Your task to perform on an android device: turn off smart reply in the gmail app Image 0: 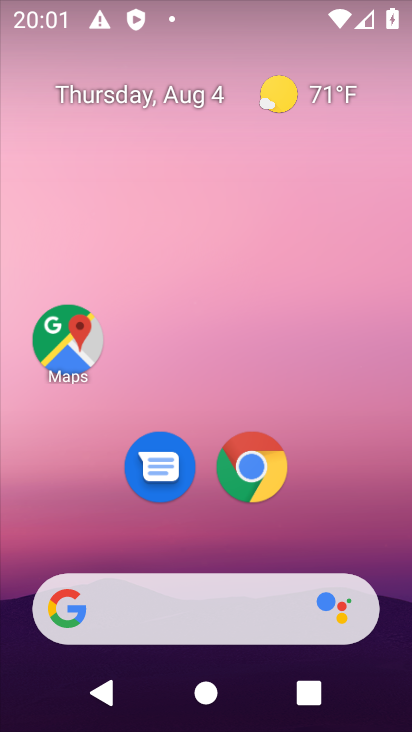
Step 0: drag from (398, 695) to (317, 69)
Your task to perform on an android device: turn off smart reply in the gmail app Image 1: 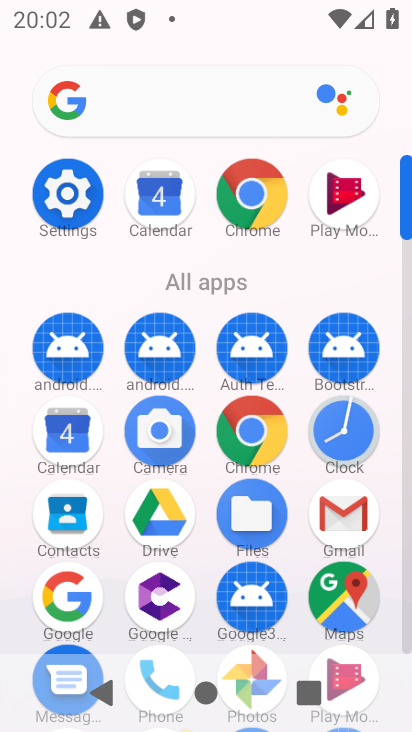
Step 1: drag from (303, 596) to (341, 156)
Your task to perform on an android device: turn off smart reply in the gmail app Image 2: 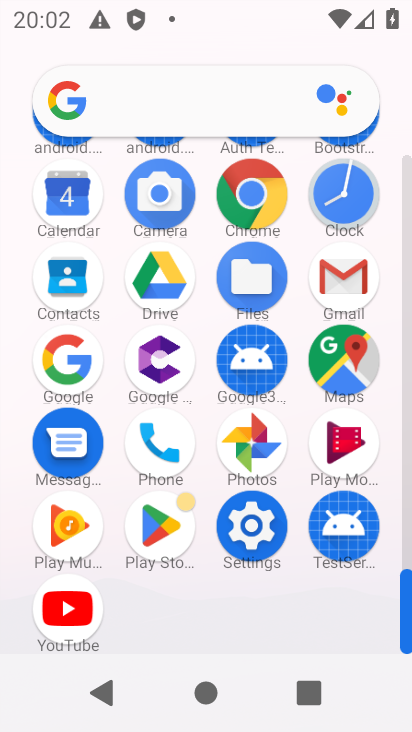
Step 2: click (355, 286)
Your task to perform on an android device: turn off smart reply in the gmail app Image 3: 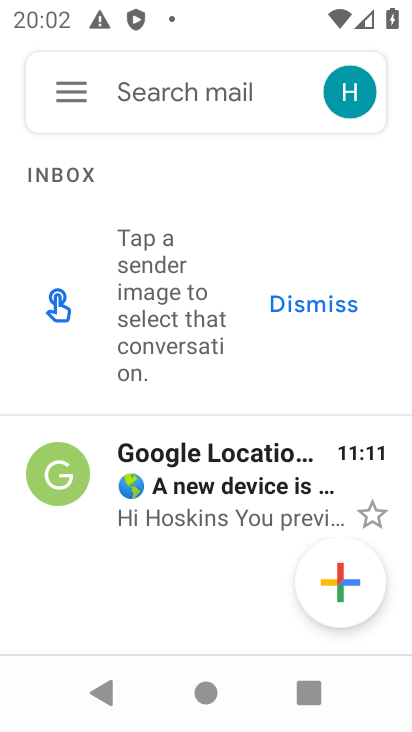
Step 3: click (59, 87)
Your task to perform on an android device: turn off smart reply in the gmail app Image 4: 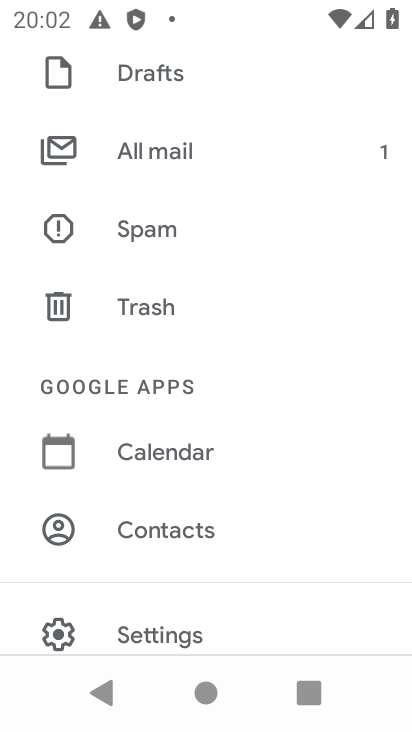
Step 4: click (121, 638)
Your task to perform on an android device: turn off smart reply in the gmail app Image 5: 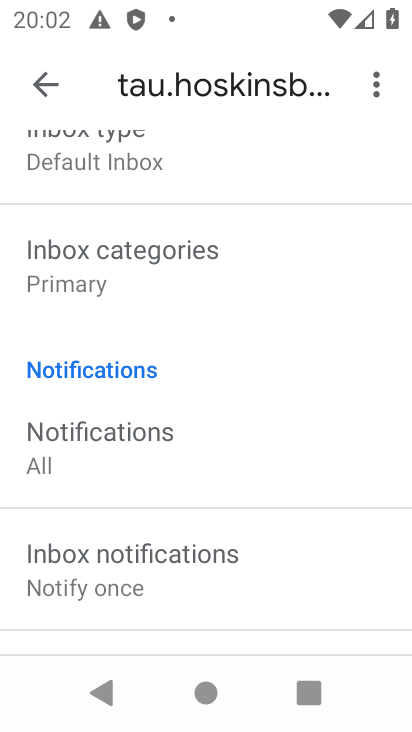
Step 5: drag from (203, 246) to (287, 731)
Your task to perform on an android device: turn off smart reply in the gmail app Image 6: 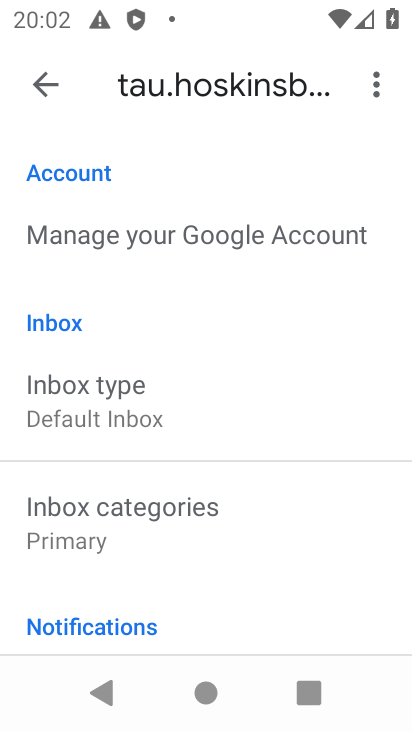
Step 6: drag from (288, 544) to (311, 163)
Your task to perform on an android device: turn off smart reply in the gmail app Image 7: 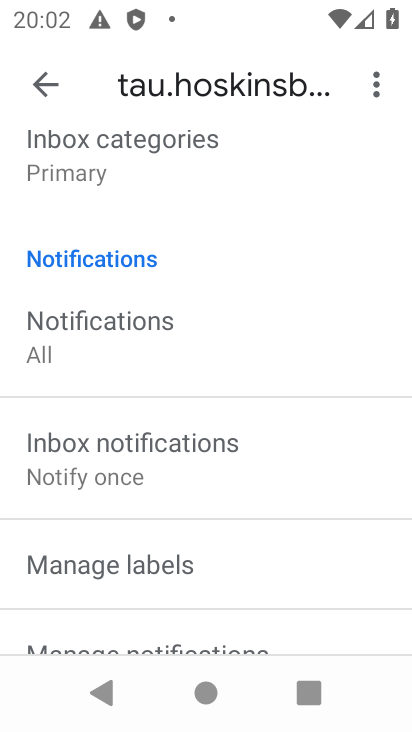
Step 7: drag from (306, 599) to (34, 567)
Your task to perform on an android device: turn off smart reply in the gmail app Image 8: 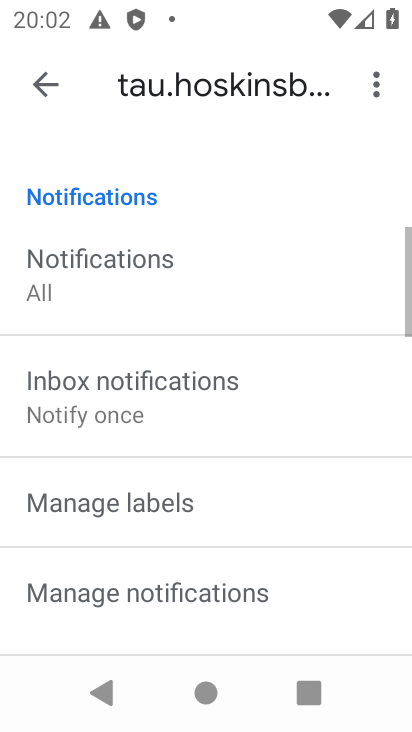
Step 8: drag from (266, 622) to (259, 226)
Your task to perform on an android device: turn off smart reply in the gmail app Image 9: 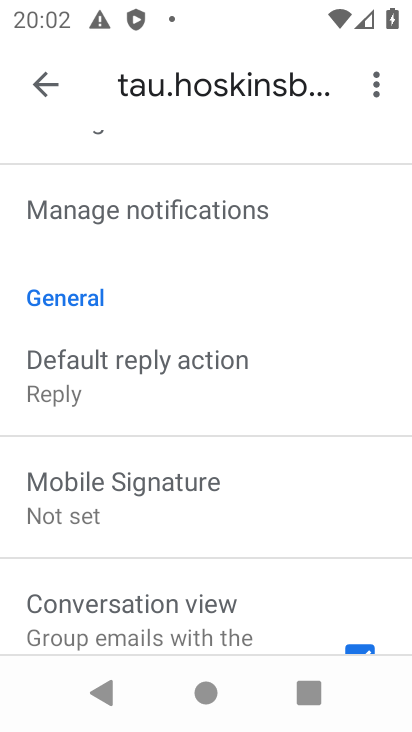
Step 9: drag from (234, 603) to (255, 216)
Your task to perform on an android device: turn off smart reply in the gmail app Image 10: 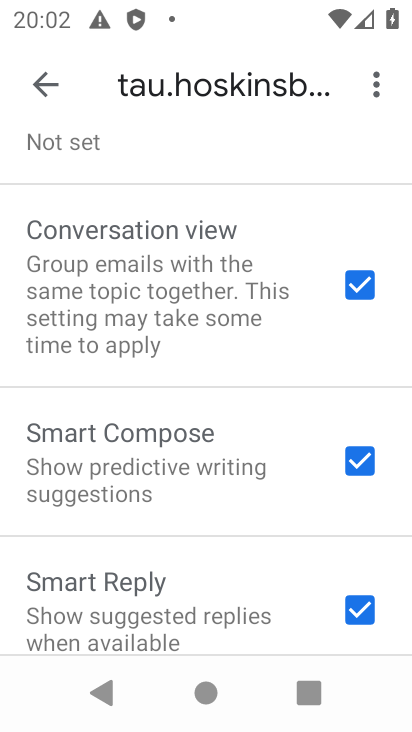
Step 10: drag from (164, 649) to (148, 448)
Your task to perform on an android device: turn off smart reply in the gmail app Image 11: 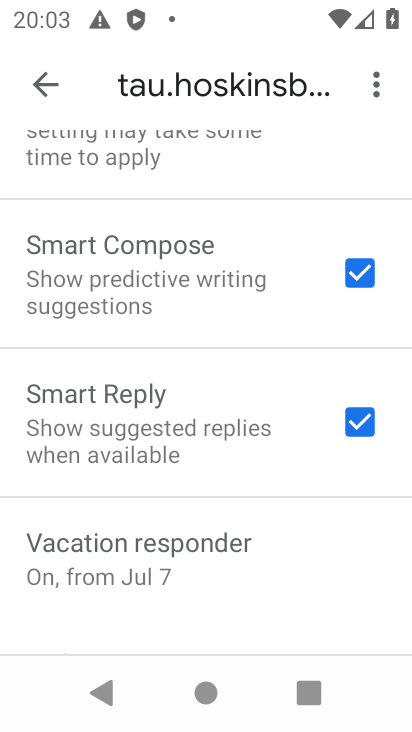
Step 11: drag from (277, 618) to (230, 356)
Your task to perform on an android device: turn off smart reply in the gmail app Image 12: 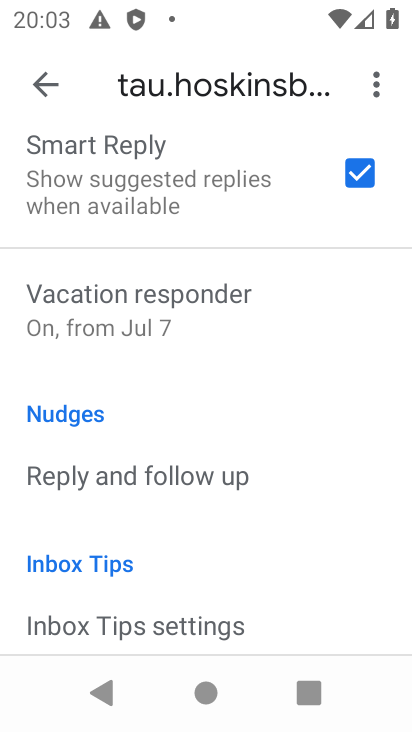
Step 12: drag from (158, 609) to (158, 528)
Your task to perform on an android device: turn off smart reply in the gmail app Image 13: 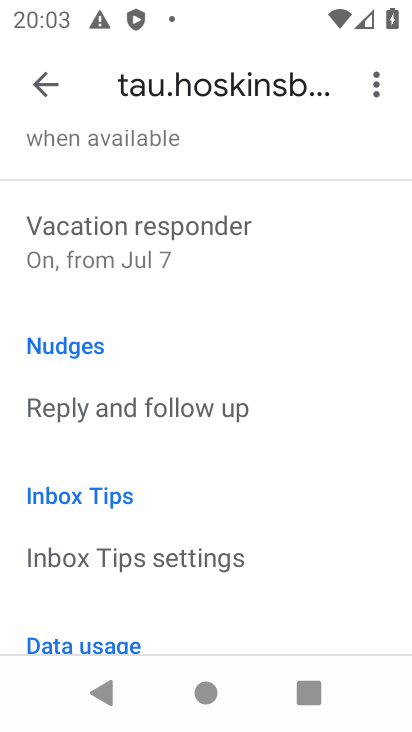
Step 13: drag from (180, 600) to (182, 480)
Your task to perform on an android device: turn off smart reply in the gmail app Image 14: 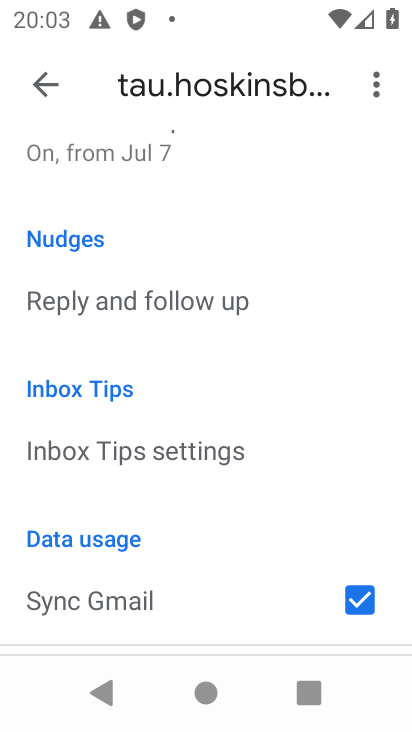
Step 14: drag from (138, 612) to (180, 379)
Your task to perform on an android device: turn off smart reply in the gmail app Image 15: 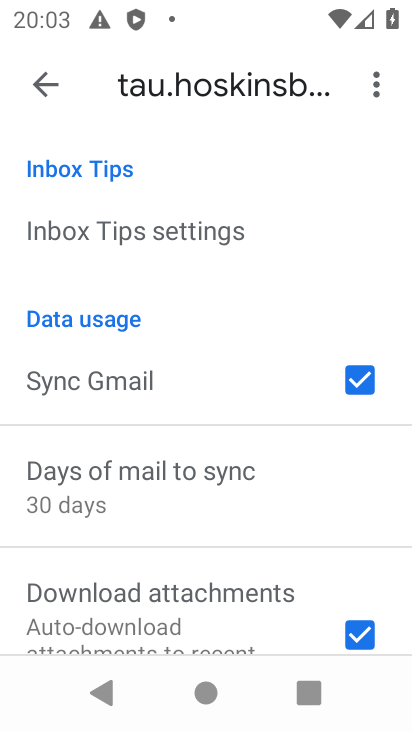
Step 15: drag from (178, 489) to (182, 380)
Your task to perform on an android device: turn off smart reply in the gmail app Image 16: 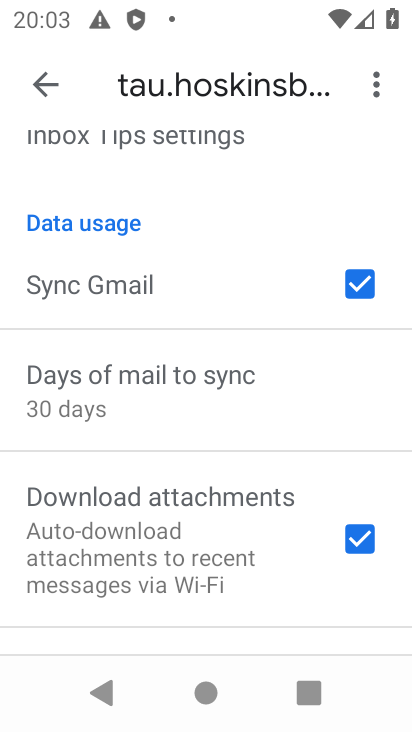
Step 16: drag from (176, 509) to (190, 362)
Your task to perform on an android device: turn off smart reply in the gmail app Image 17: 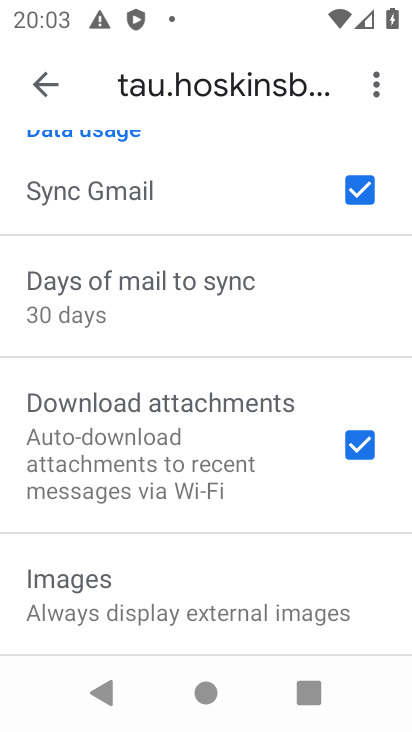
Step 17: drag from (211, 285) to (227, 728)
Your task to perform on an android device: turn off smart reply in the gmail app Image 18: 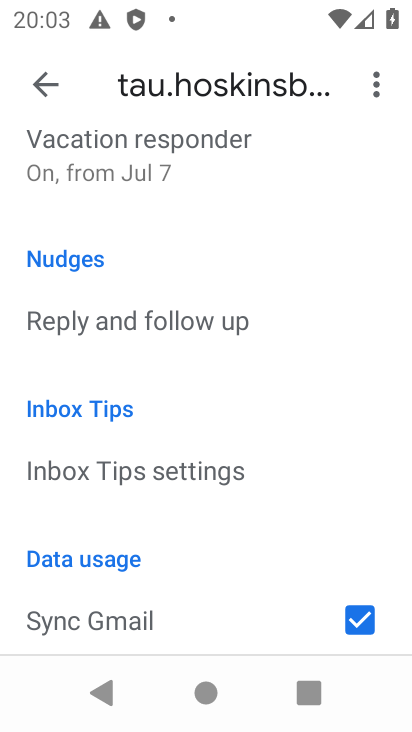
Step 18: drag from (217, 237) to (209, 722)
Your task to perform on an android device: turn off smart reply in the gmail app Image 19: 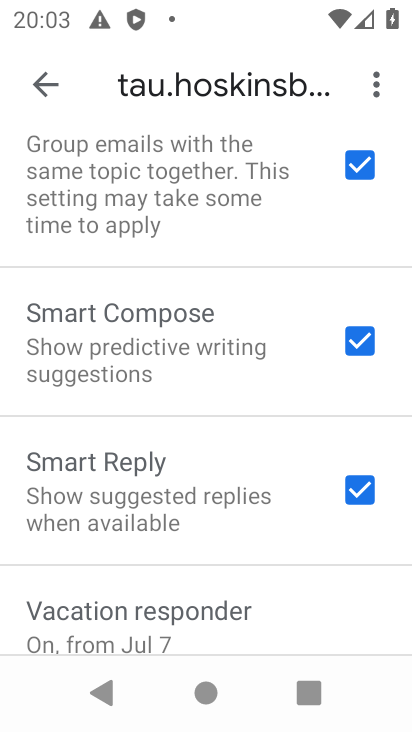
Step 19: click (308, 487)
Your task to perform on an android device: turn off smart reply in the gmail app Image 20: 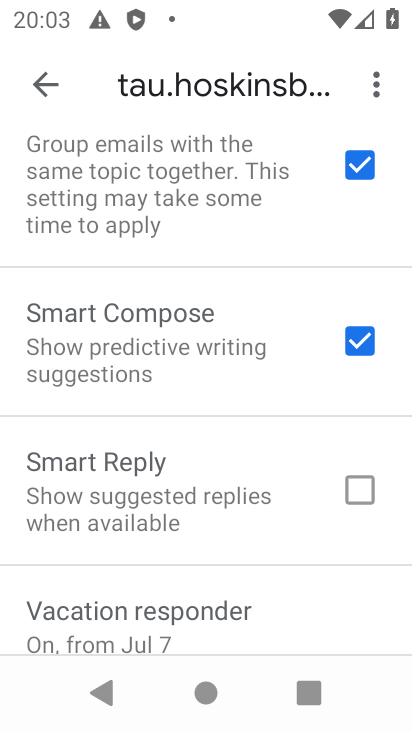
Step 20: task complete